Your task to perform on an android device: turn on bluetooth scan Image 0: 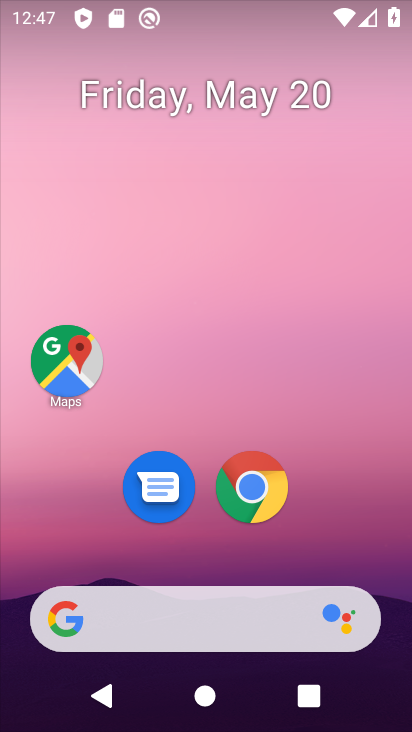
Step 0: drag from (338, 478) to (333, 134)
Your task to perform on an android device: turn on bluetooth scan Image 1: 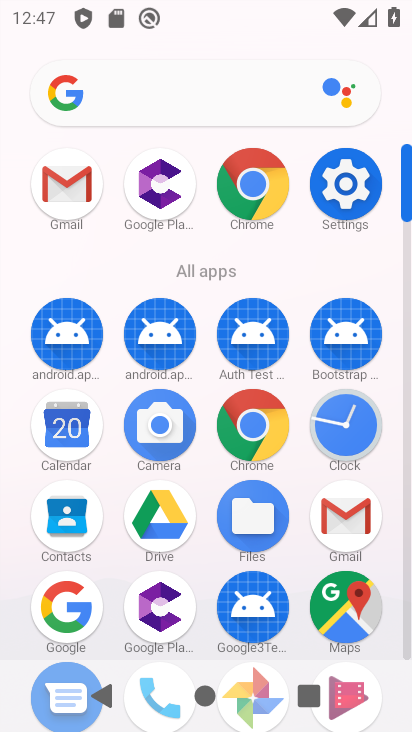
Step 1: click (336, 191)
Your task to perform on an android device: turn on bluetooth scan Image 2: 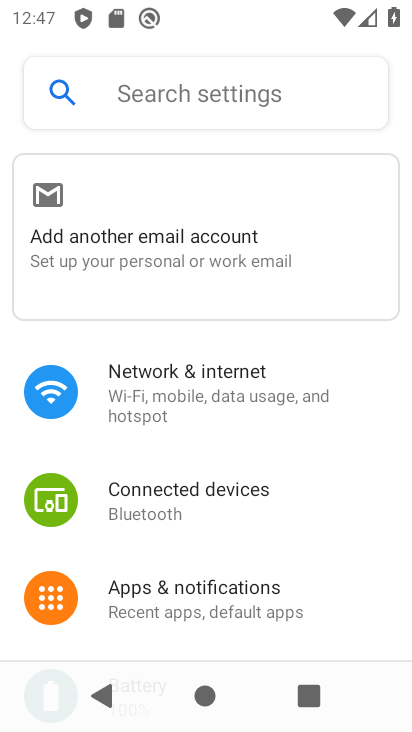
Step 2: drag from (242, 616) to (279, 242)
Your task to perform on an android device: turn on bluetooth scan Image 3: 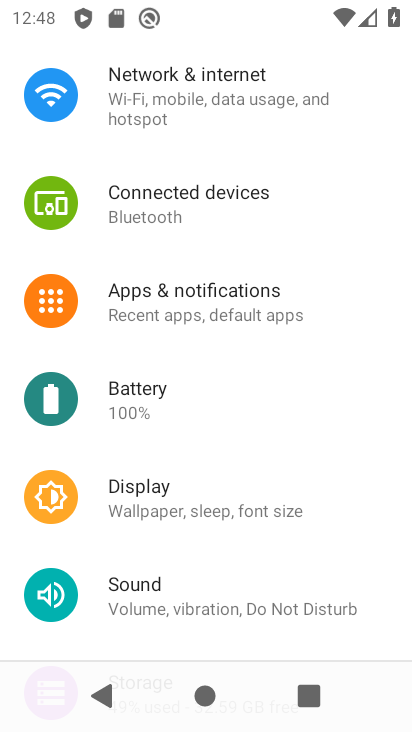
Step 3: click (284, 202)
Your task to perform on an android device: turn on bluetooth scan Image 4: 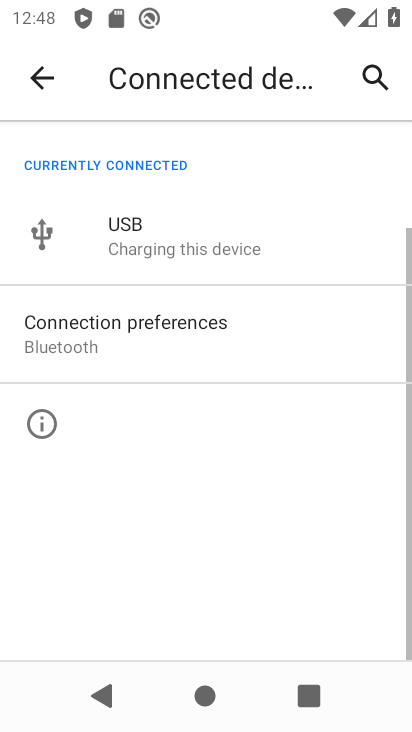
Step 4: click (44, 78)
Your task to perform on an android device: turn on bluetooth scan Image 5: 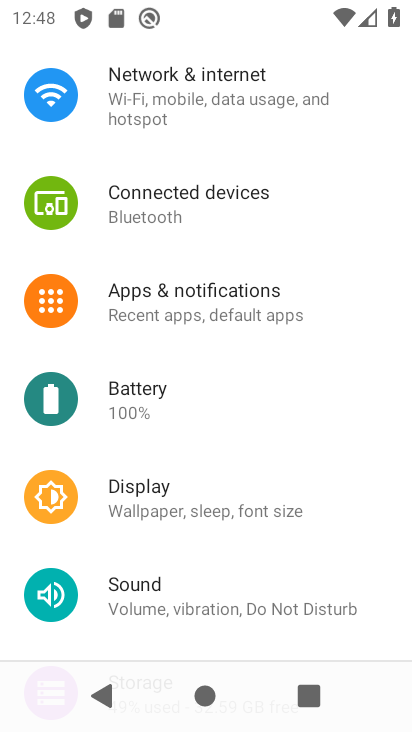
Step 5: drag from (265, 537) to (310, 152)
Your task to perform on an android device: turn on bluetooth scan Image 6: 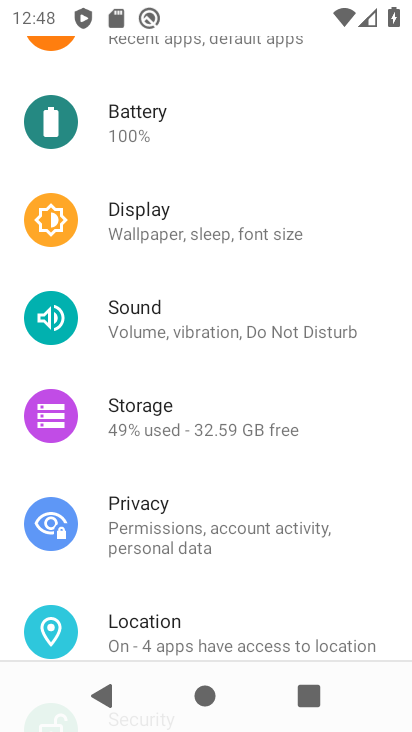
Step 6: click (191, 627)
Your task to perform on an android device: turn on bluetooth scan Image 7: 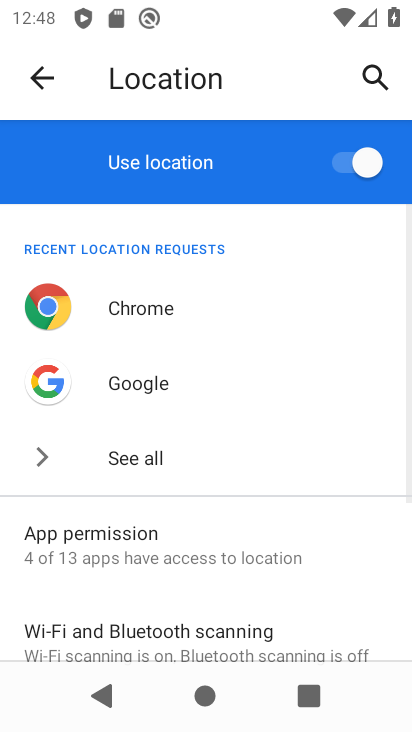
Step 7: click (213, 644)
Your task to perform on an android device: turn on bluetooth scan Image 8: 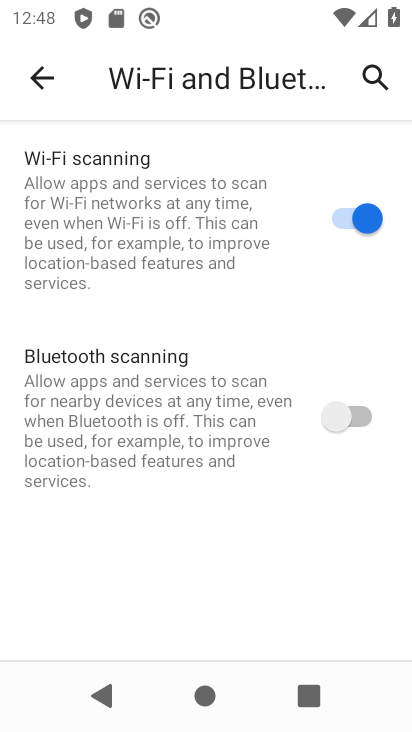
Step 8: click (331, 418)
Your task to perform on an android device: turn on bluetooth scan Image 9: 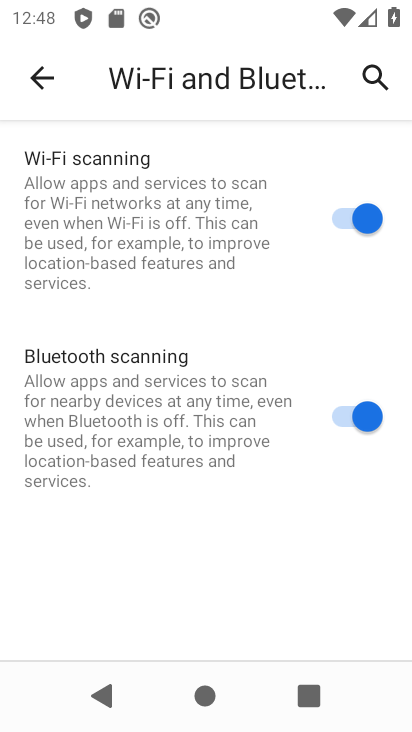
Step 9: task complete